Your task to perform on an android device: Play the latest video from the Washington Post Image 0: 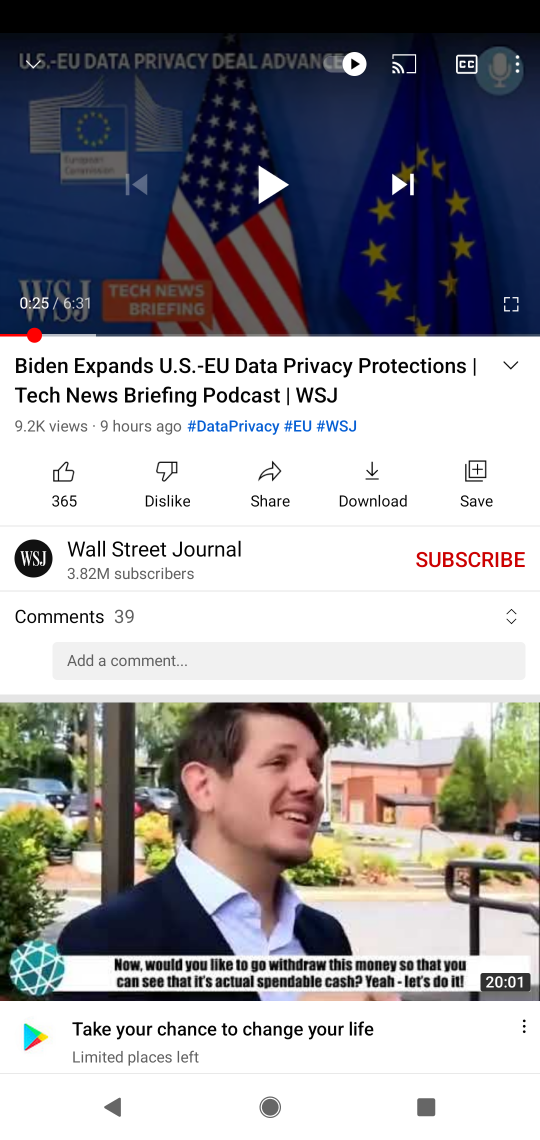
Step 0: press home button
Your task to perform on an android device: Play the latest video from the Washington Post Image 1: 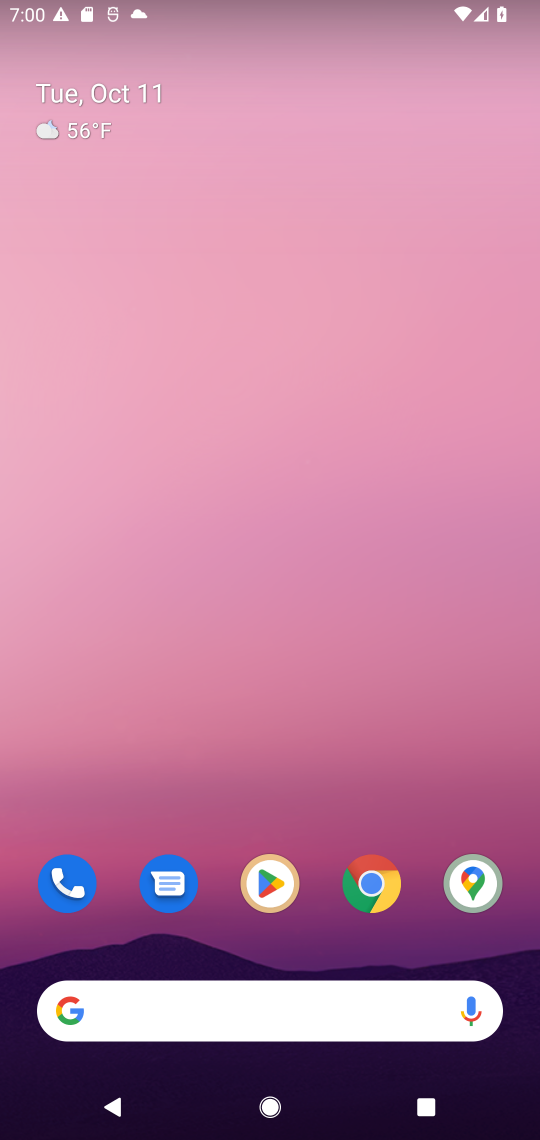
Step 1: drag from (342, 703) to (442, 51)
Your task to perform on an android device: Play the latest video from the Washington Post Image 2: 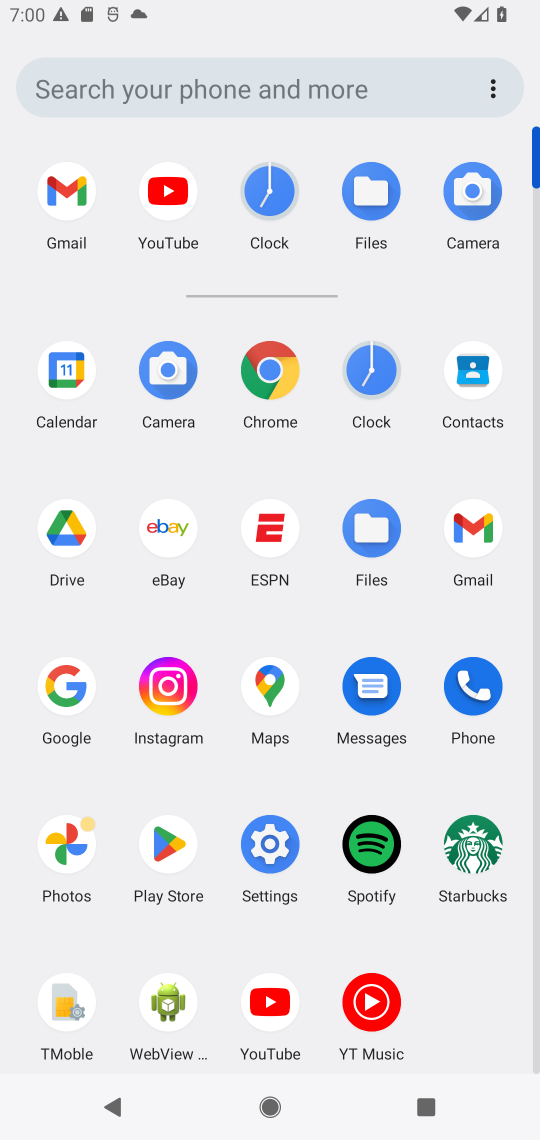
Step 2: click (258, 999)
Your task to perform on an android device: Play the latest video from the Washington Post Image 3: 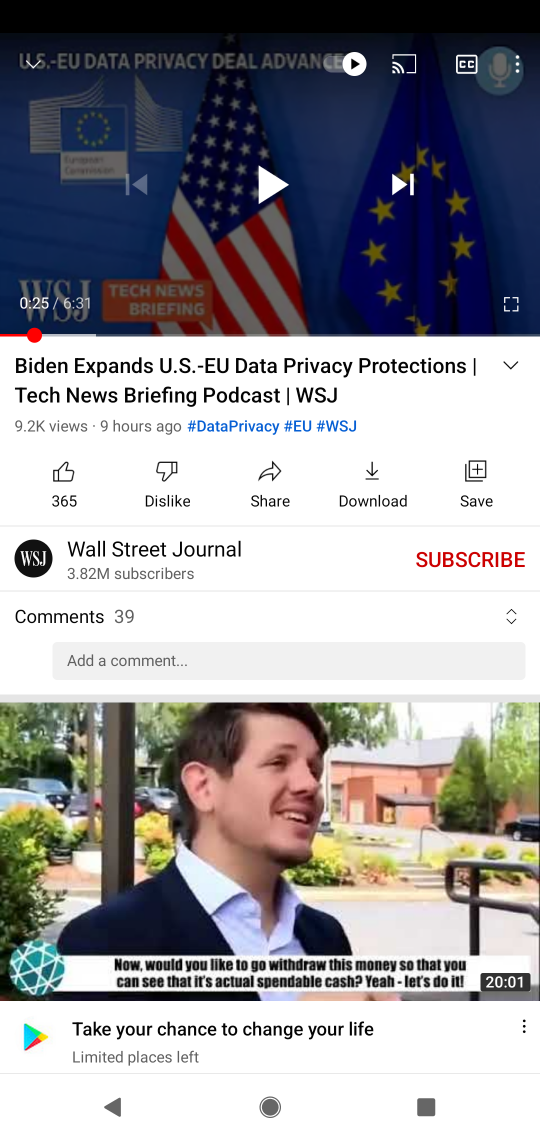
Step 3: drag from (321, 146) to (270, 845)
Your task to perform on an android device: Play the latest video from the Washington Post Image 4: 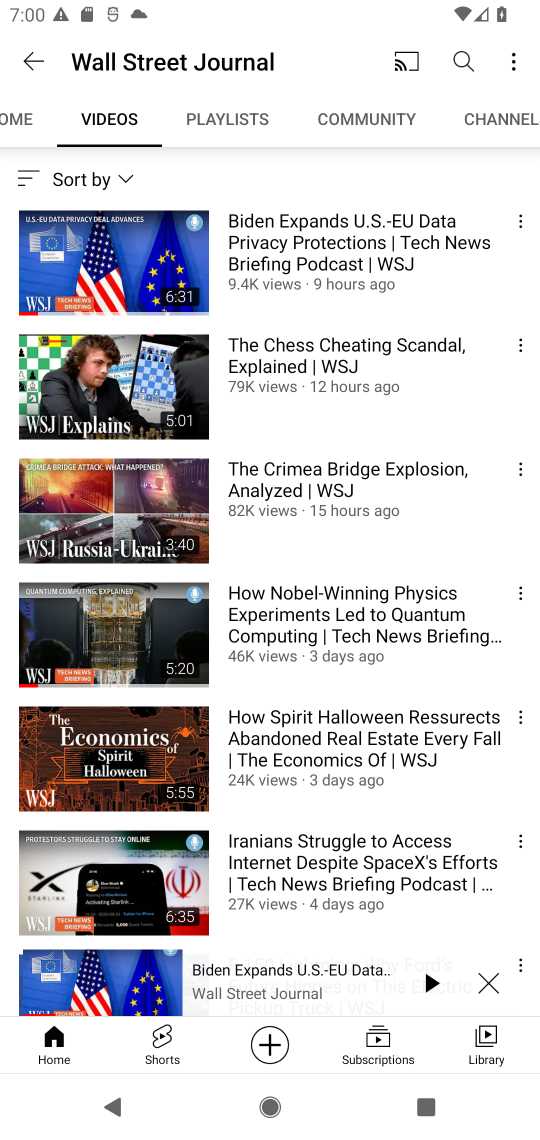
Step 4: click (292, 56)
Your task to perform on an android device: Play the latest video from the Washington Post Image 5: 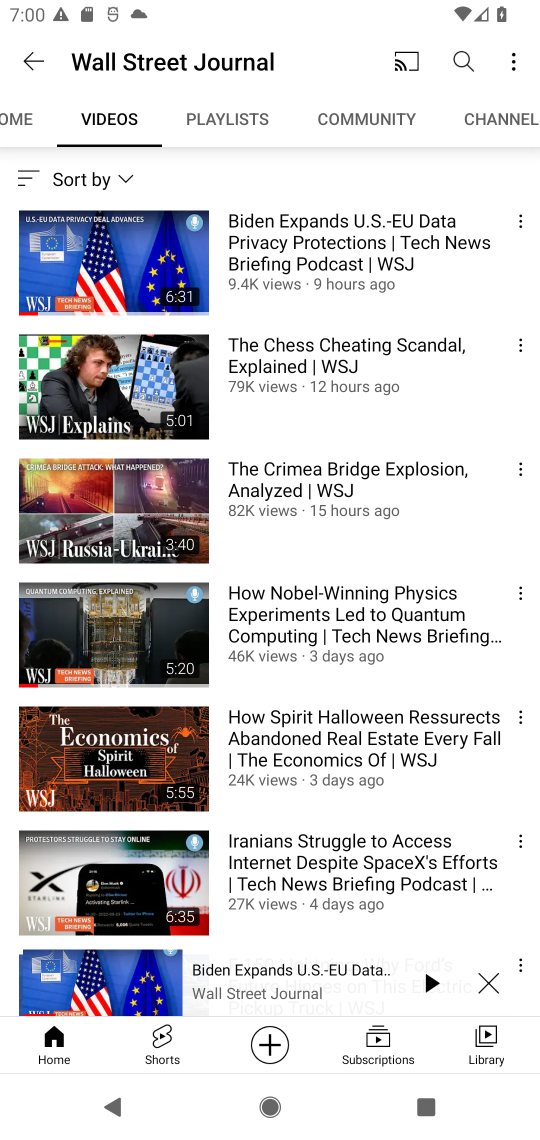
Step 5: press back button
Your task to perform on an android device: Play the latest video from the Washington Post Image 6: 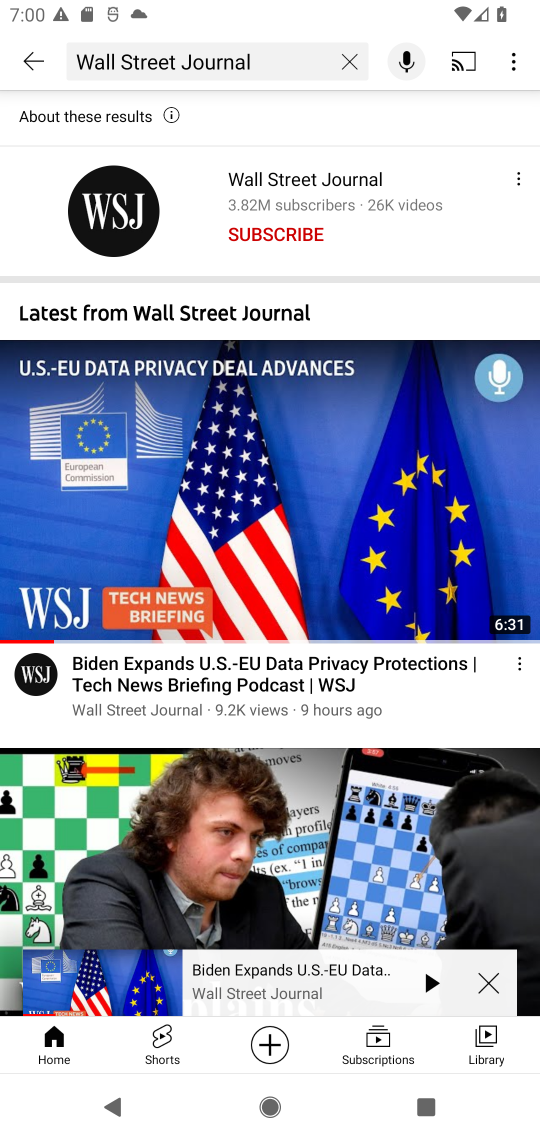
Step 6: click (360, 65)
Your task to perform on an android device: Play the latest video from the Washington Post Image 7: 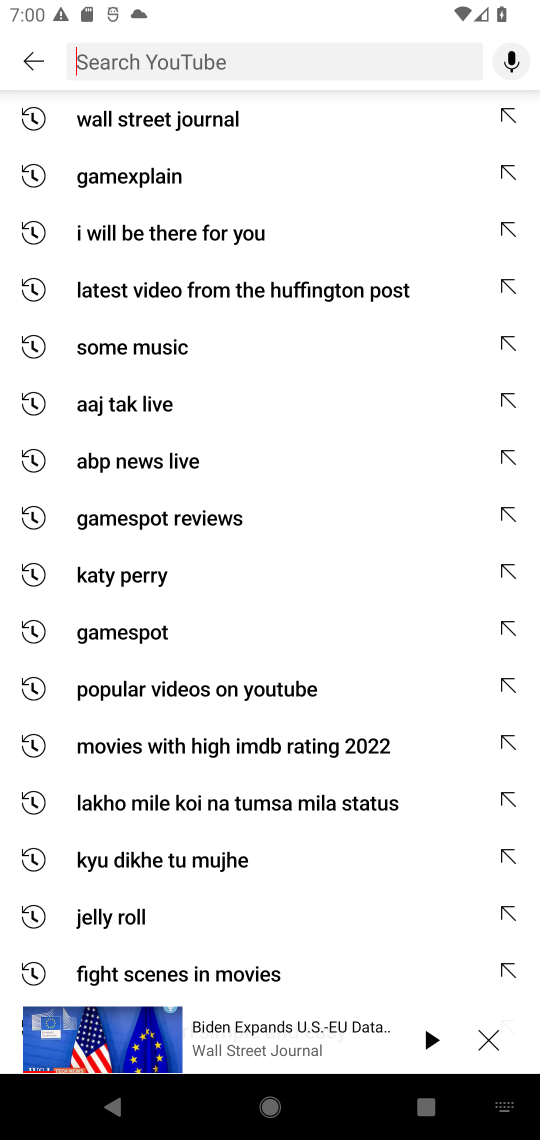
Step 7: type "Washington"
Your task to perform on an android device: Play the latest video from the Washington Post Image 8: 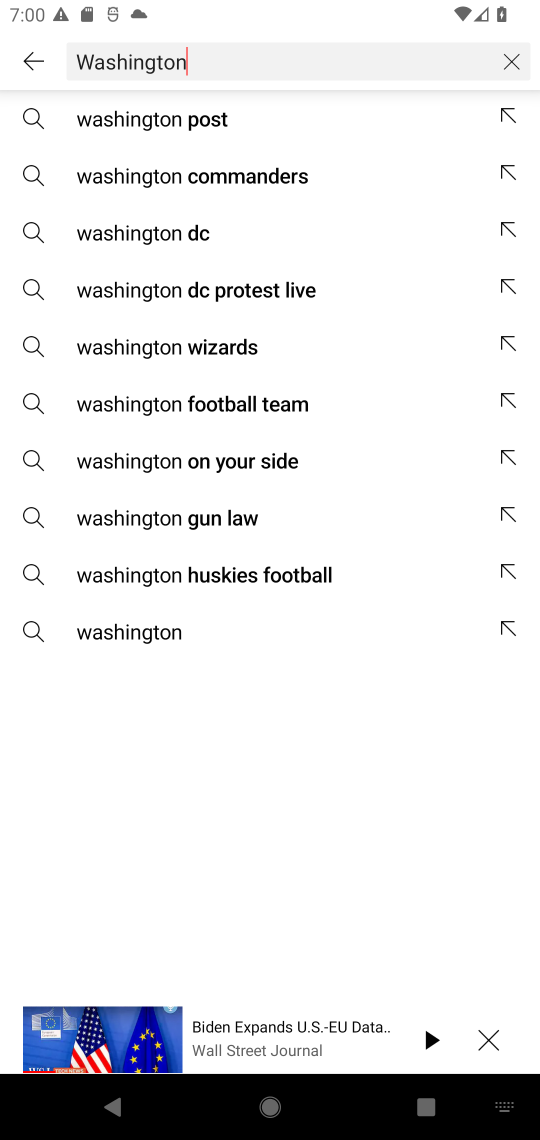
Step 8: type "post"
Your task to perform on an android device: Play the latest video from the Washington Post Image 9: 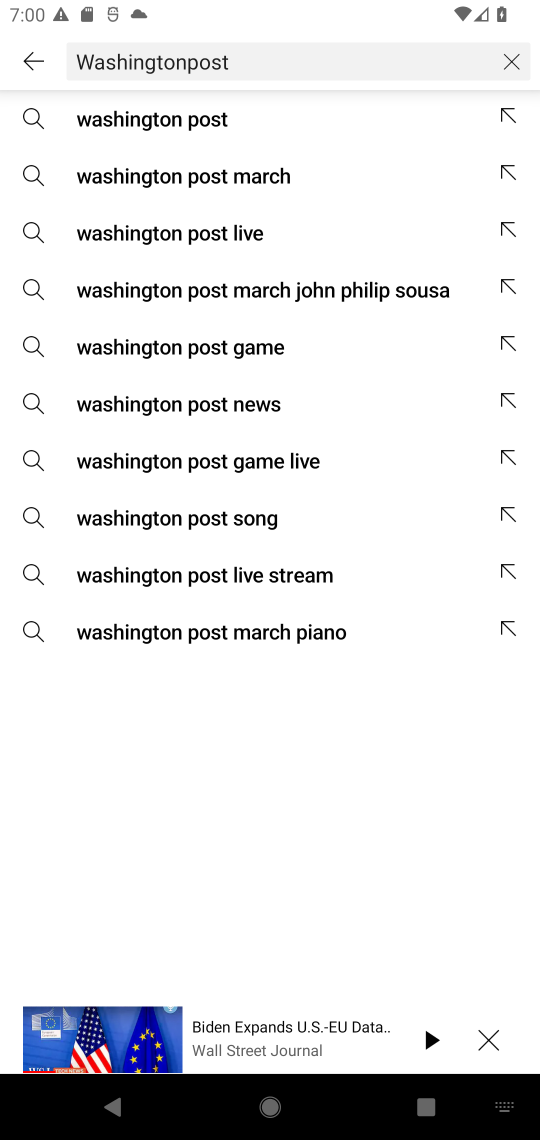
Step 9: press enter
Your task to perform on an android device: Play the latest video from the Washington Post Image 10: 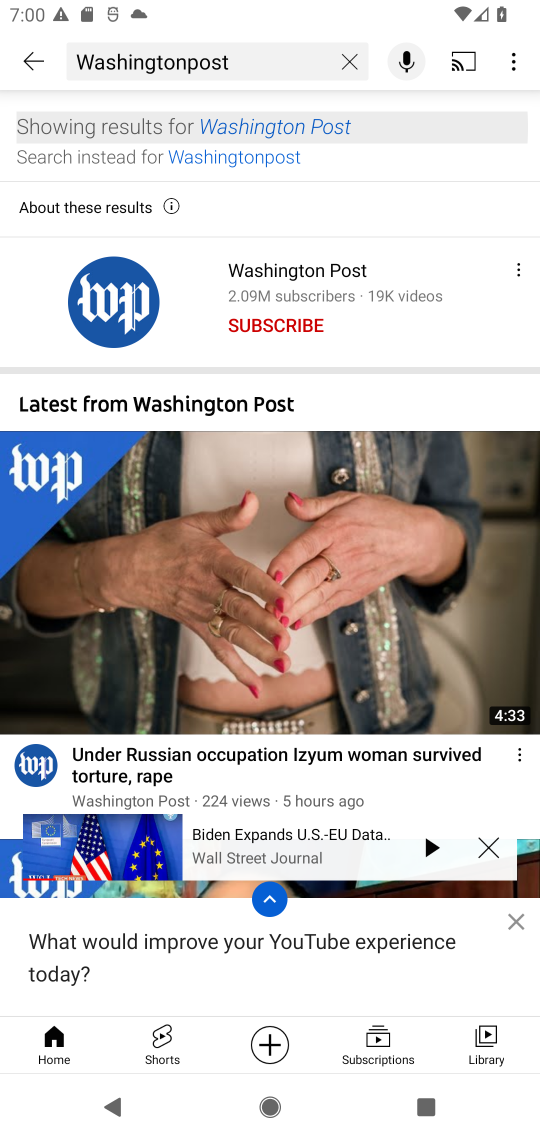
Step 10: click (106, 294)
Your task to perform on an android device: Play the latest video from the Washington Post Image 11: 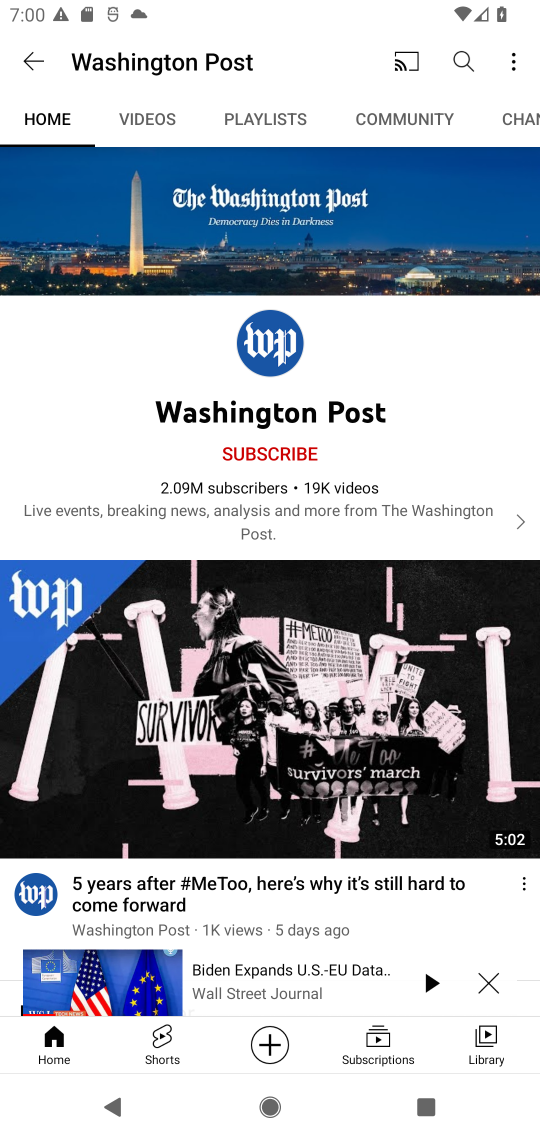
Step 11: click (155, 122)
Your task to perform on an android device: Play the latest video from the Washington Post Image 12: 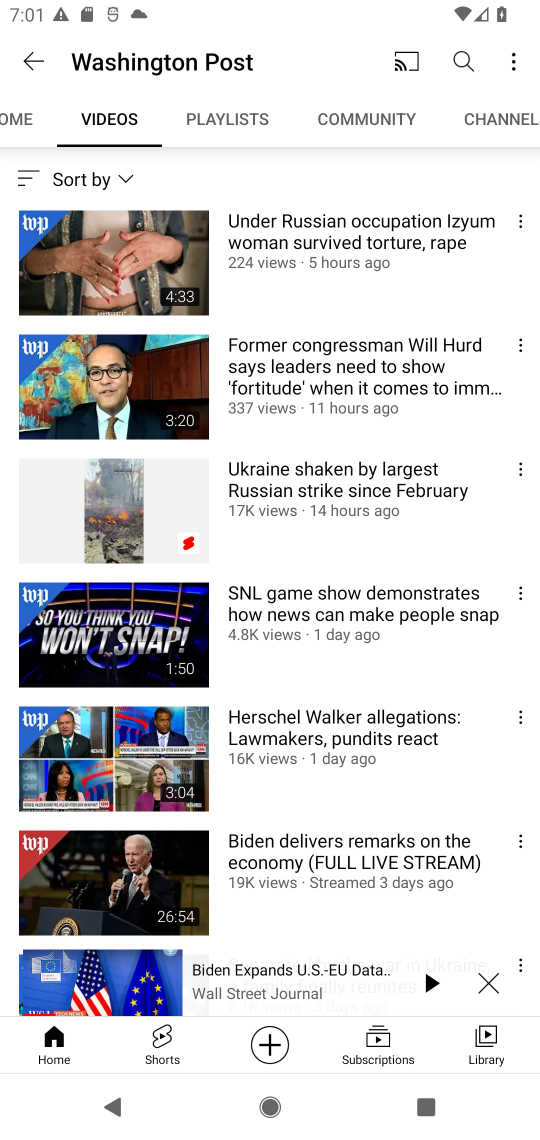
Step 12: click (295, 246)
Your task to perform on an android device: Play the latest video from the Washington Post Image 13: 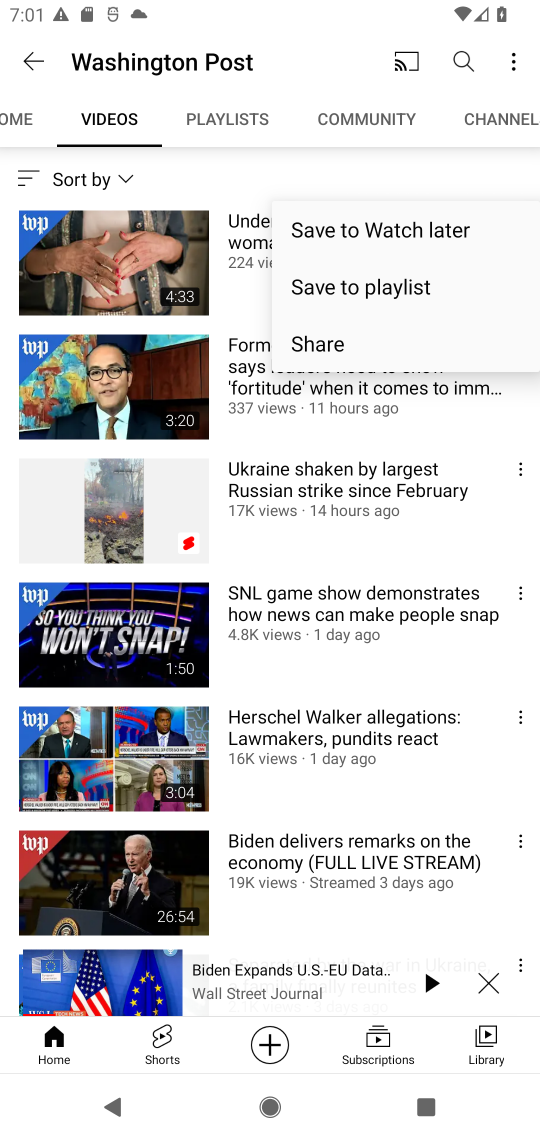
Step 13: click (167, 246)
Your task to perform on an android device: Play the latest video from the Washington Post Image 14: 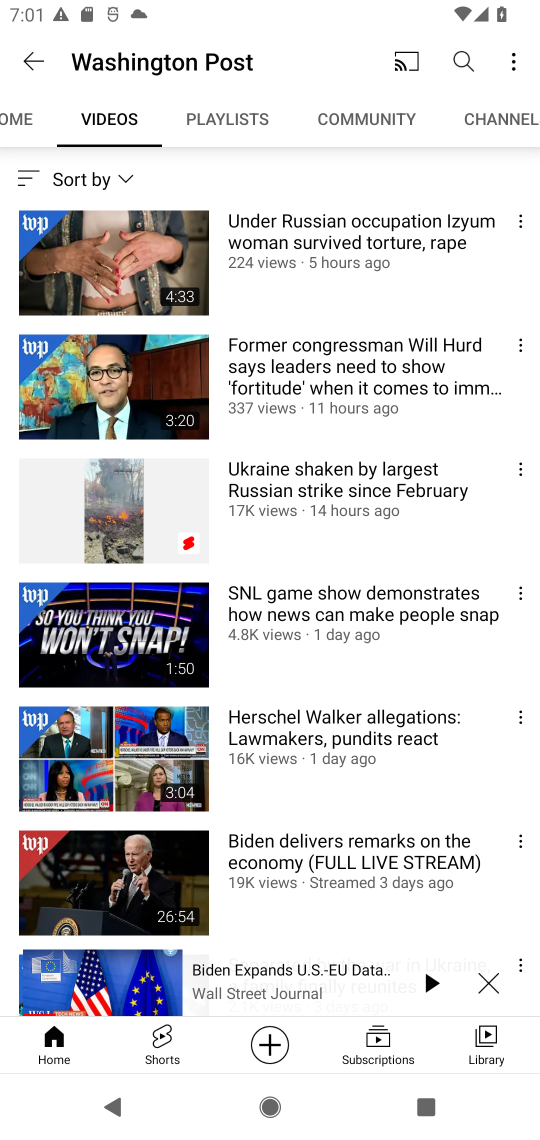
Step 14: click (108, 239)
Your task to perform on an android device: Play the latest video from the Washington Post Image 15: 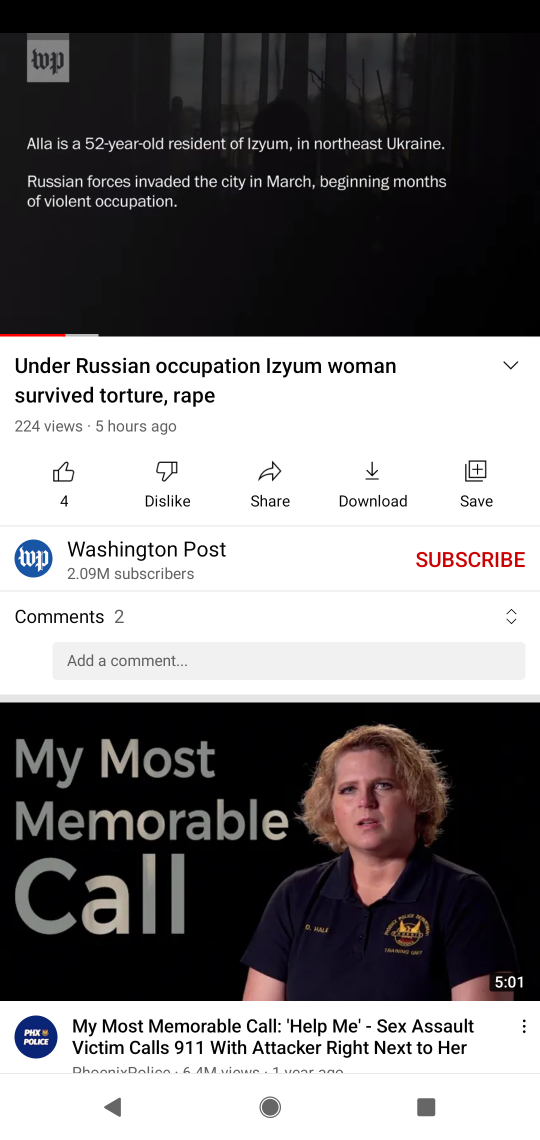
Step 15: task complete